Your task to perform on an android device: Open the calendar app, open the side menu, and click the "Day" option Image 0: 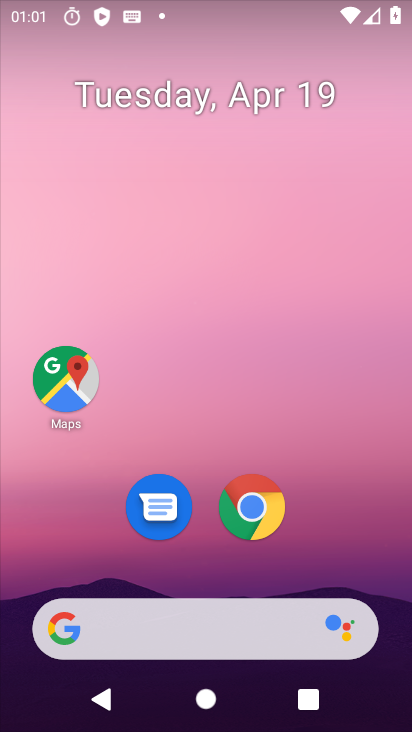
Step 0: drag from (212, 413) to (250, 63)
Your task to perform on an android device: Open the calendar app, open the side menu, and click the "Day" option Image 1: 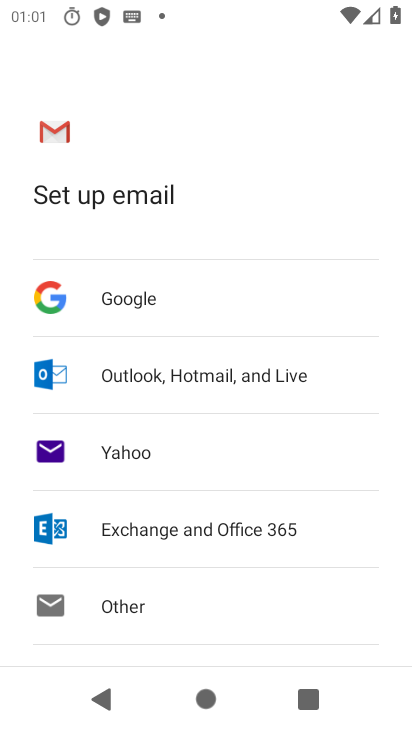
Step 1: press home button
Your task to perform on an android device: Open the calendar app, open the side menu, and click the "Day" option Image 2: 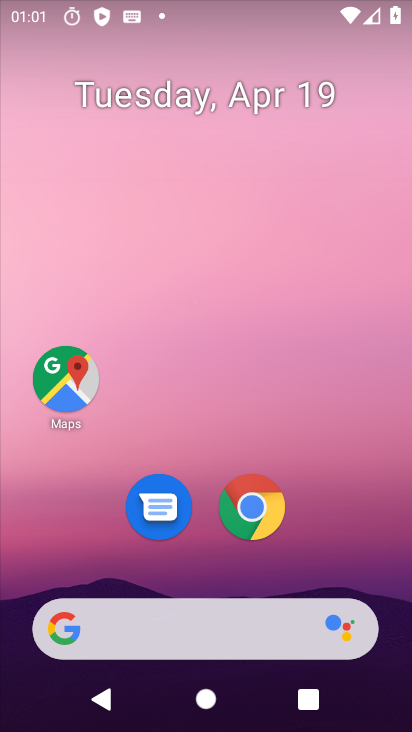
Step 2: drag from (203, 565) to (287, 81)
Your task to perform on an android device: Open the calendar app, open the side menu, and click the "Day" option Image 3: 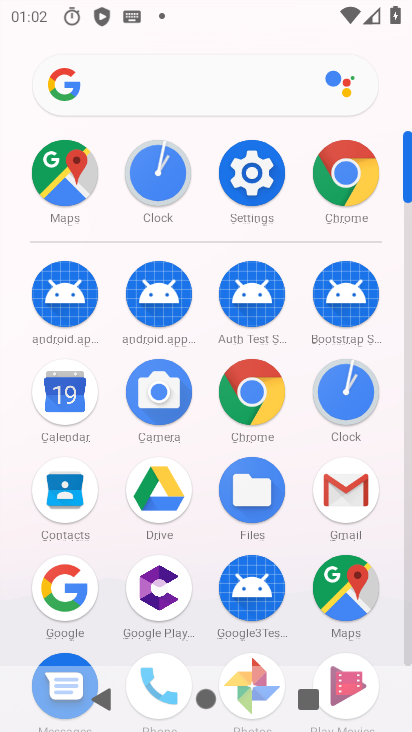
Step 3: click (67, 390)
Your task to perform on an android device: Open the calendar app, open the side menu, and click the "Day" option Image 4: 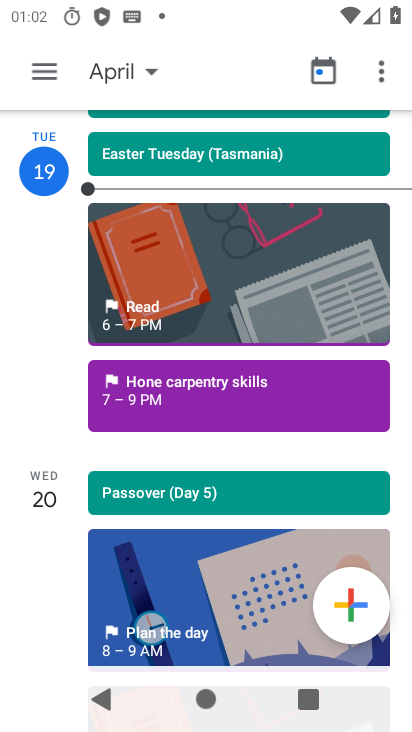
Step 4: click (39, 64)
Your task to perform on an android device: Open the calendar app, open the side menu, and click the "Day" option Image 5: 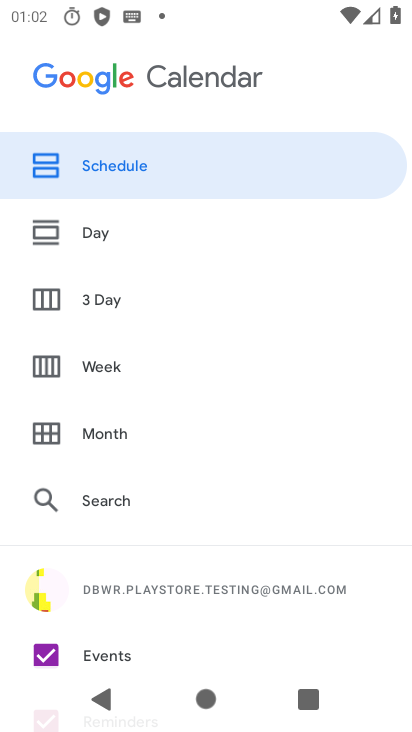
Step 5: click (104, 231)
Your task to perform on an android device: Open the calendar app, open the side menu, and click the "Day" option Image 6: 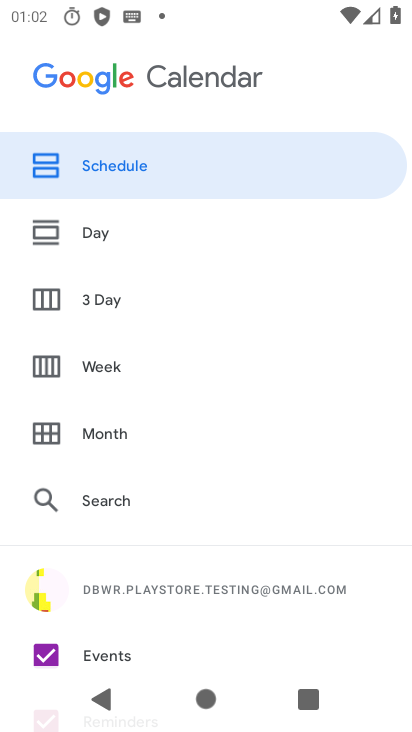
Step 6: drag from (157, 522) to (223, 140)
Your task to perform on an android device: Open the calendar app, open the side menu, and click the "Day" option Image 7: 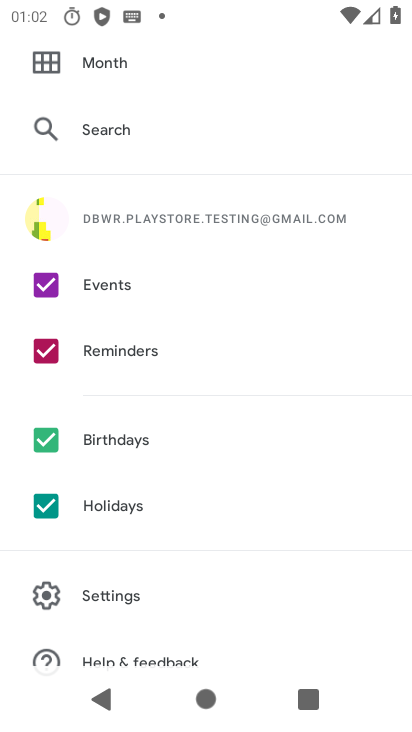
Step 7: drag from (163, 575) to (234, 115)
Your task to perform on an android device: Open the calendar app, open the side menu, and click the "Day" option Image 8: 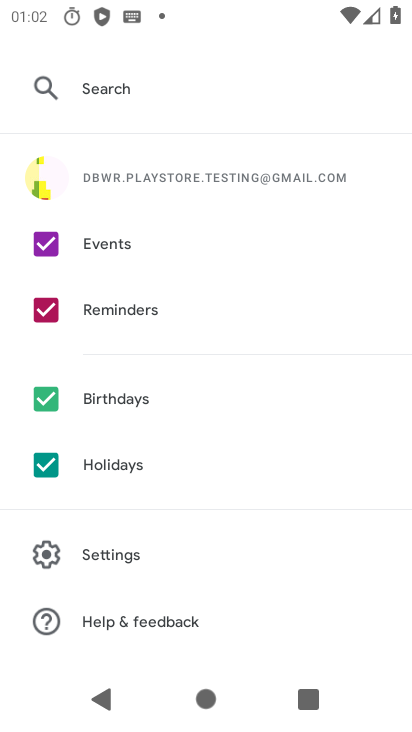
Step 8: drag from (115, 140) to (118, 586)
Your task to perform on an android device: Open the calendar app, open the side menu, and click the "Day" option Image 9: 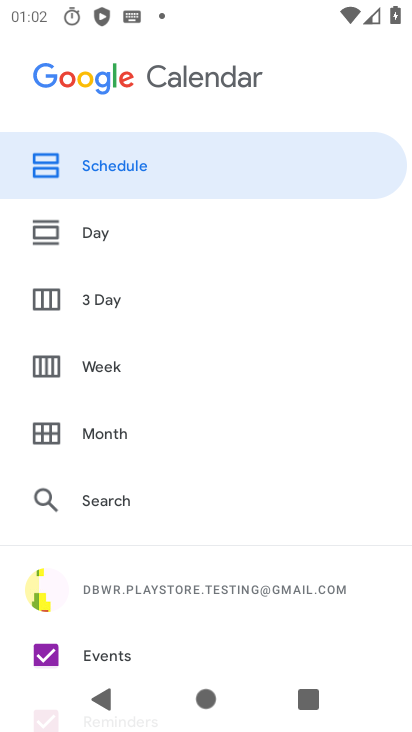
Step 9: click (69, 233)
Your task to perform on an android device: Open the calendar app, open the side menu, and click the "Day" option Image 10: 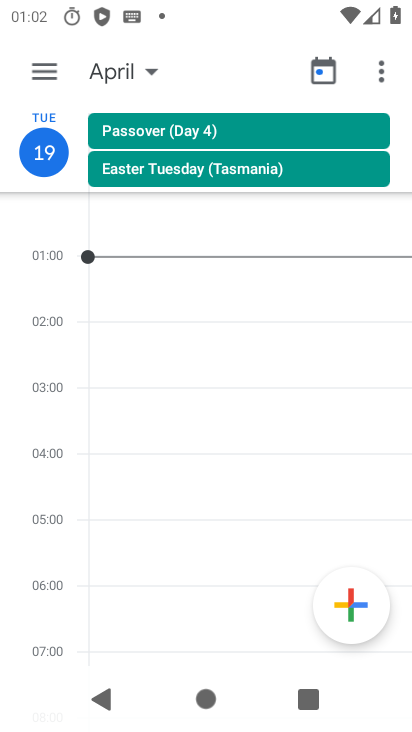
Step 10: task complete